Your task to perform on an android device: see sites visited before in the chrome app Image 0: 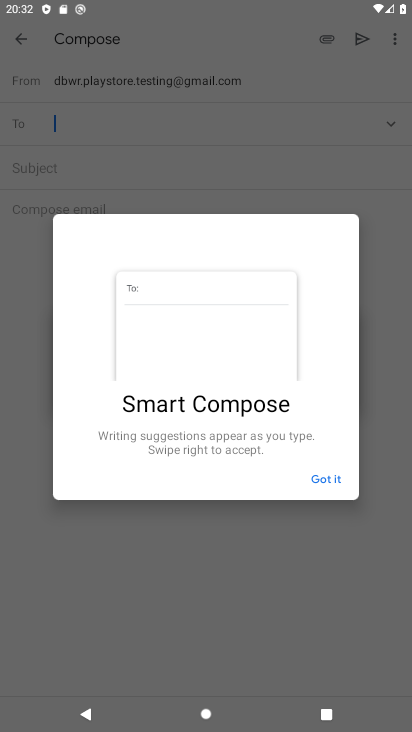
Step 0: press home button
Your task to perform on an android device: see sites visited before in the chrome app Image 1: 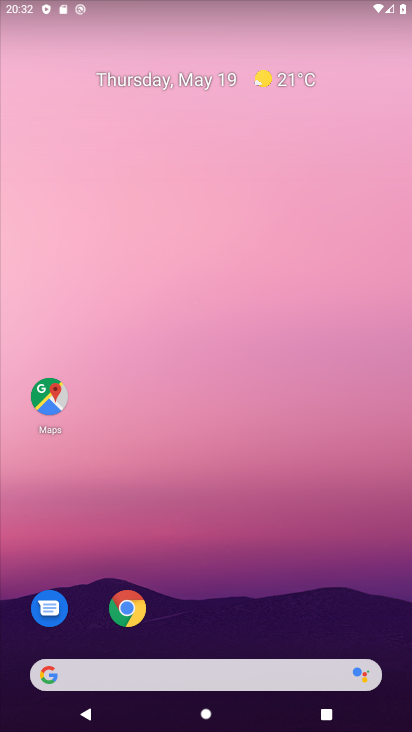
Step 1: click (132, 611)
Your task to perform on an android device: see sites visited before in the chrome app Image 2: 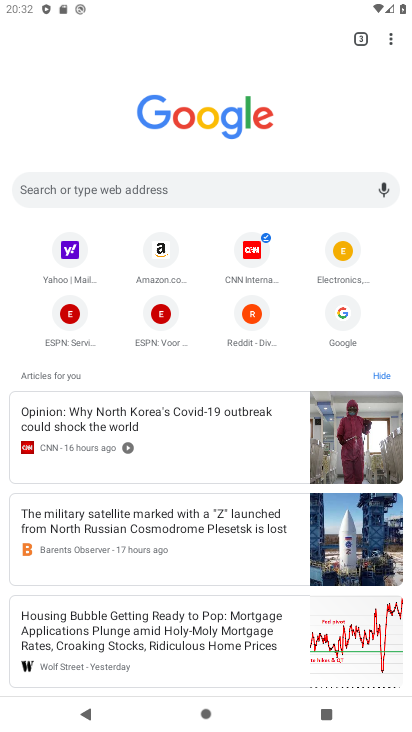
Step 2: click (388, 42)
Your task to perform on an android device: see sites visited before in the chrome app Image 3: 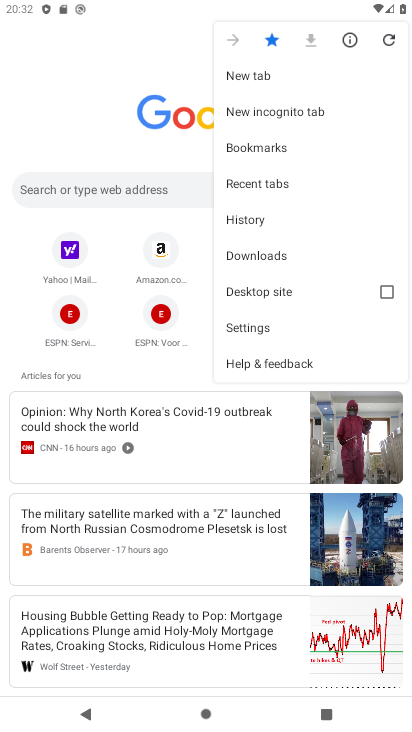
Step 3: click (251, 213)
Your task to perform on an android device: see sites visited before in the chrome app Image 4: 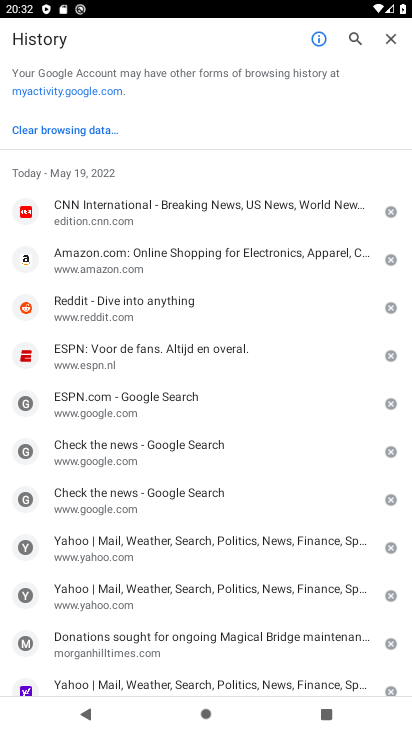
Step 4: task complete